Your task to perform on an android device: turn off sleep mode Image 0: 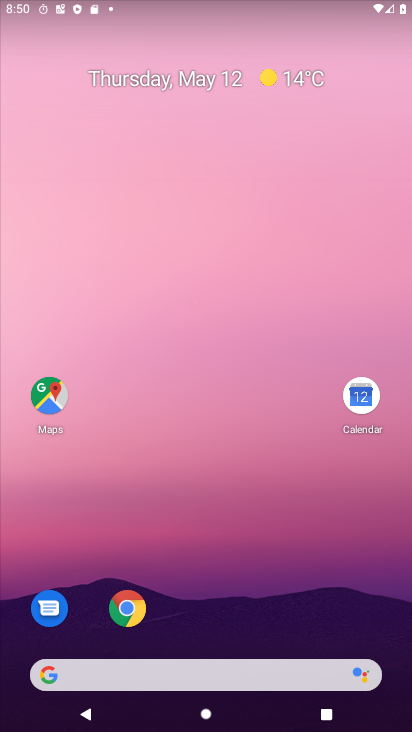
Step 0: drag from (158, 581) to (99, 210)
Your task to perform on an android device: turn off sleep mode Image 1: 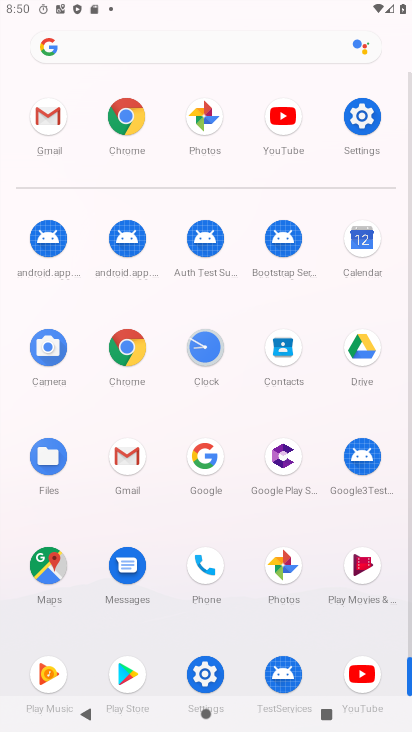
Step 1: click (371, 126)
Your task to perform on an android device: turn off sleep mode Image 2: 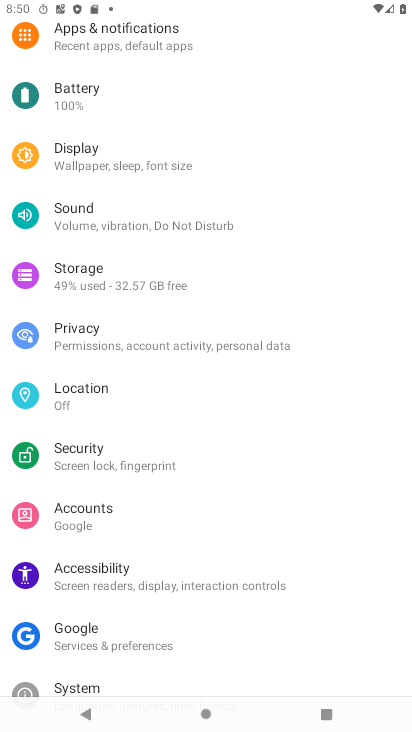
Step 2: drag from (224, 70) to (196, 464)
Your task to perform on an android device: turn off sleep mode Image 3: 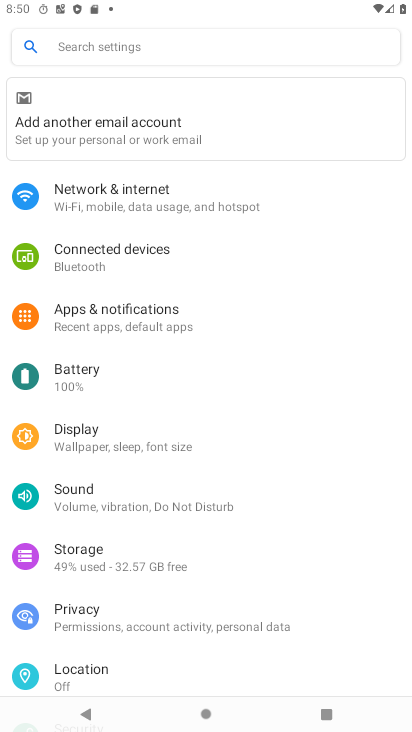
Step 3: click (144, 445)
Your task to perform on an android device: turn off sleep mode Image 4: 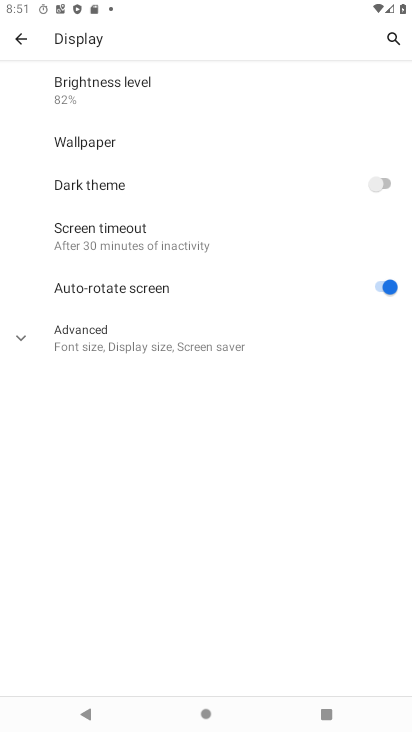
Step 4: click (38, 322)
Your task to perform on an android device: turn off sleep mode Image 5: 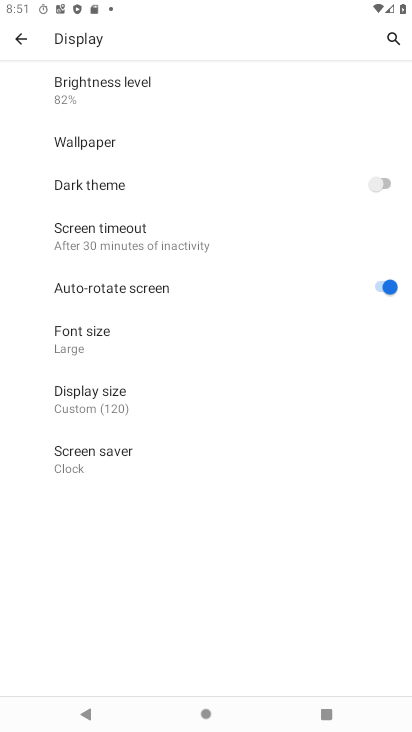
Step 5: task complete